Your task to perform on an android device: open wifi settings Image 0: 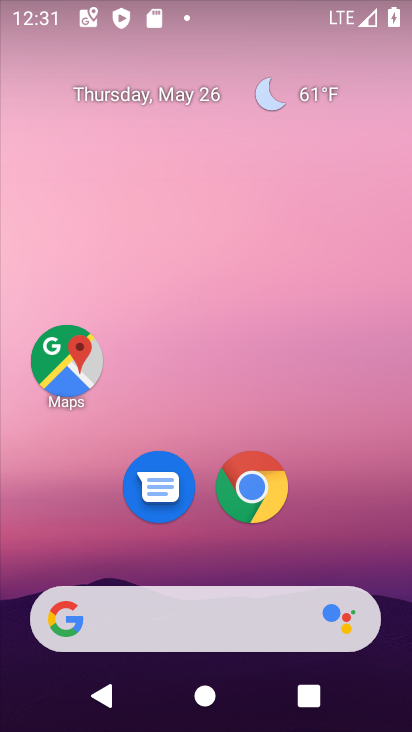
Step 0: drag from (356, 703) to (235, 227)
Your task to perform on an android device: open wifi settings Image 1: 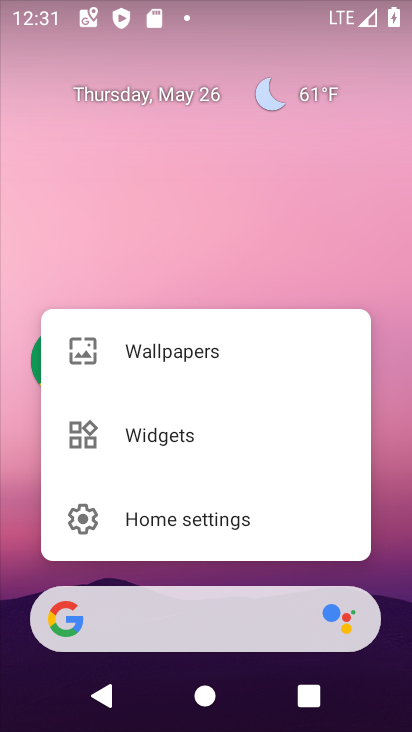
Step 1: click (232, 216)
Your task to perform on an android device: open wifi settings Image 2: 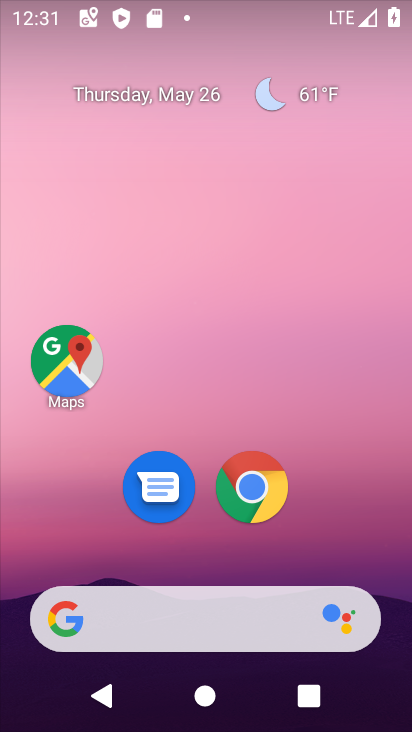
Step 2: drag from (261, 661) to (166, 217)
Your task to perform on an android device: open wifi settings Image 3: 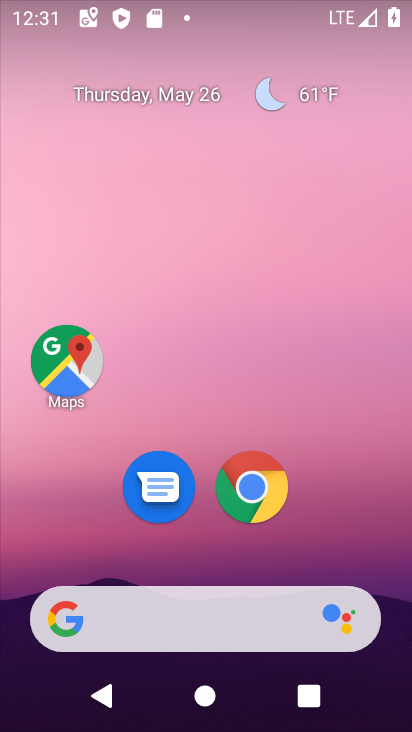
Step 3: drag from (276, 675) to (189, 94)
Your task to perform on an android device: open wifi settings Image 4: 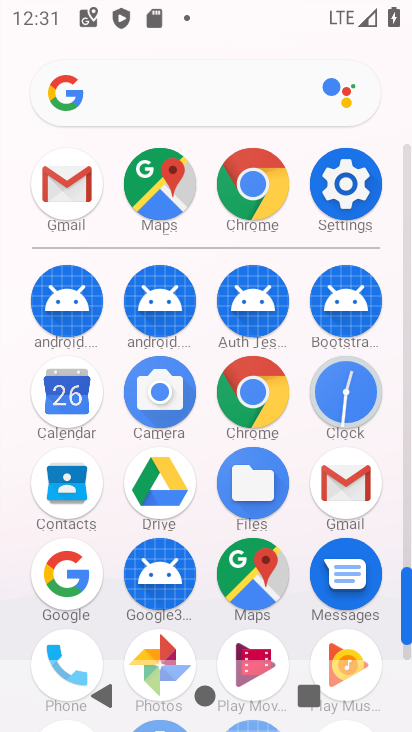
Step 4: click (338, 182)
Your task to perform on an android device: open wifi settings Image 5: 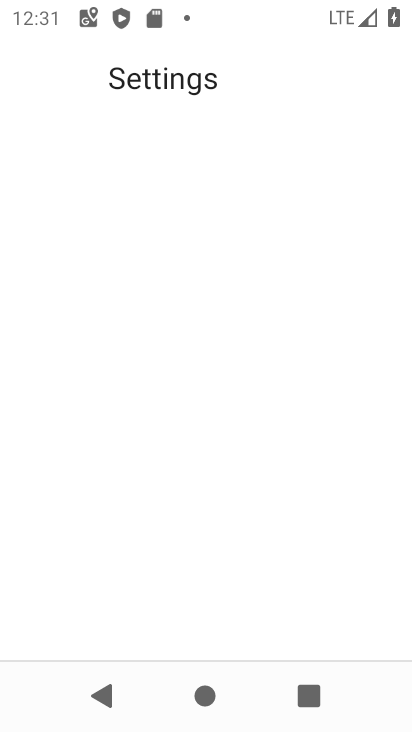
Step 5: click (338, 182)
Your task to perform on an android device: open wifi settings Image 6: 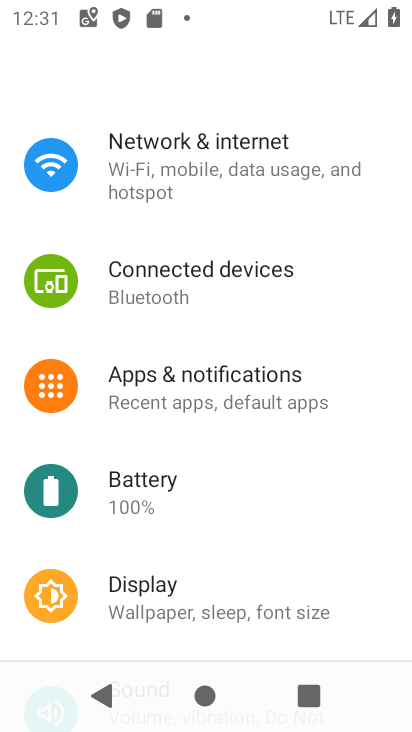
Step 6: click (339, 181)
Your task to perform on an android device: open wifi settings Image 7: 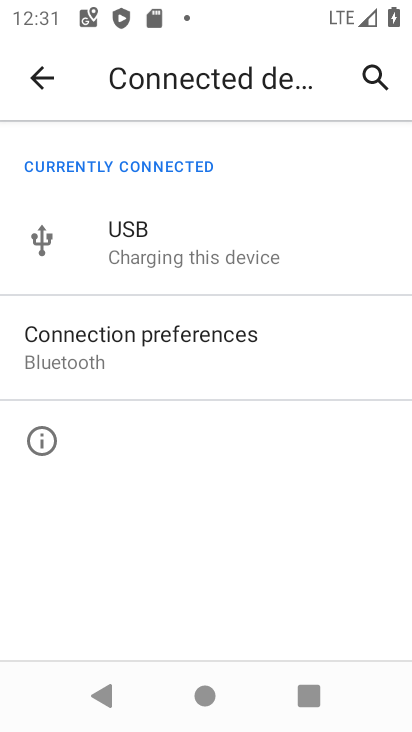
Step 7: click (32, 72)
Your task to perform on an android device: open wifi settings Image 8: 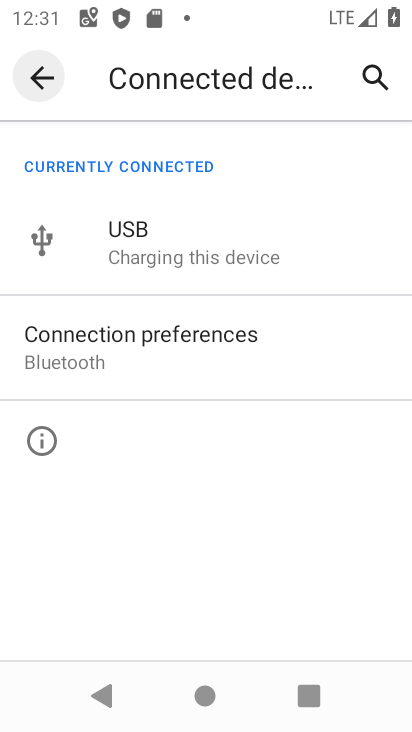
Step 8: click (33, 73)
Your task to perform on an android device: open wifi settings Image 9: 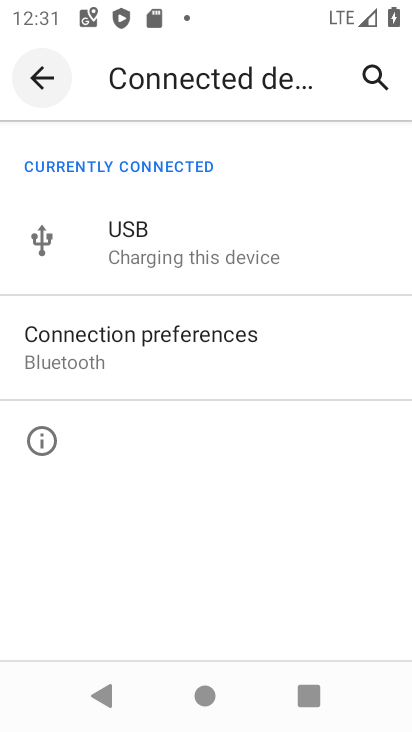
Step 9: click (33, 73)
Your task to perform on an android device: open wifi settings Image 10: 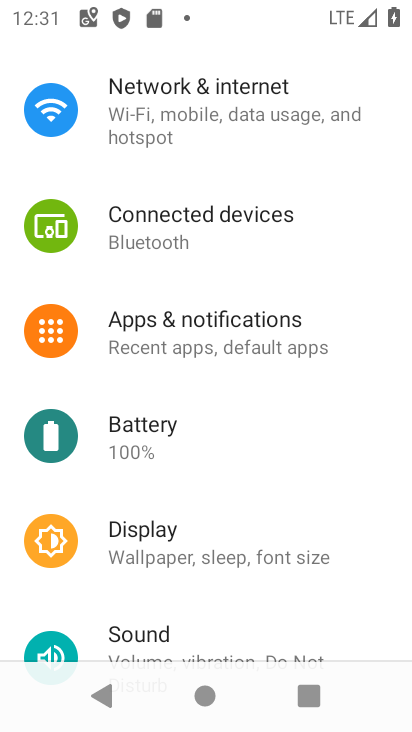
Step 10: click (33, 73)
Your task to perform on an android device: open wifi settings Image 11: 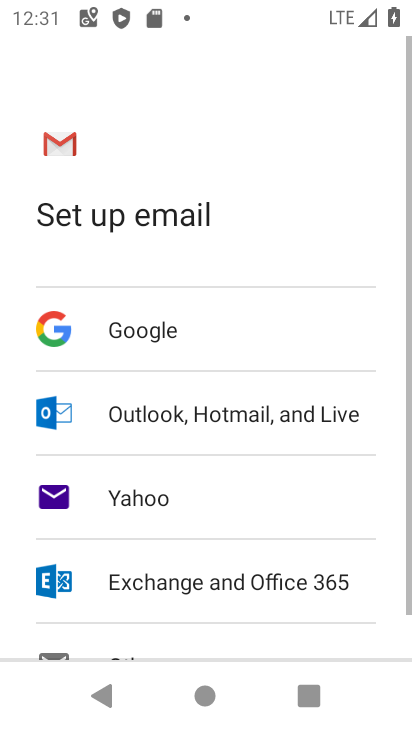
Step 11: press back button
Your task to perform on an android device: open wifi settings Image 12: 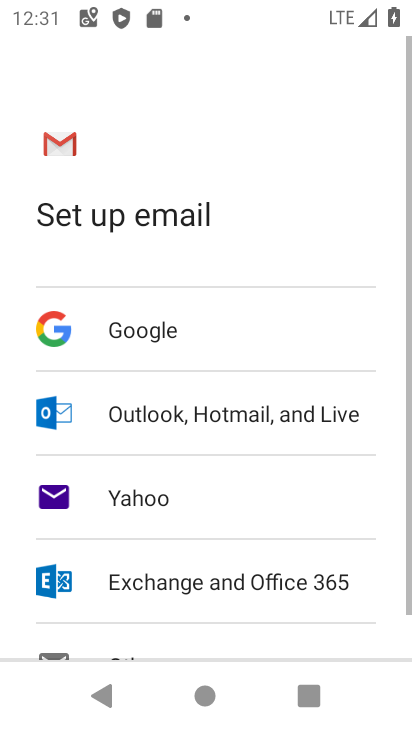
Step 12: press back button
Your task to perform on an android device: open wifi settings Image 13: 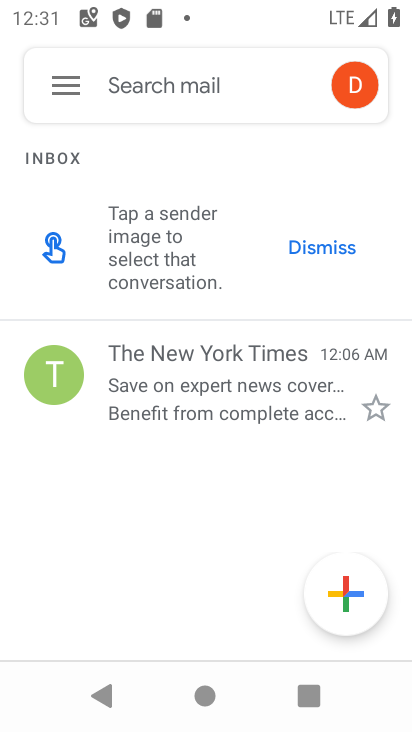
Step 13: press back button
Your task to perform on an android device: open wifi settings Image 14: 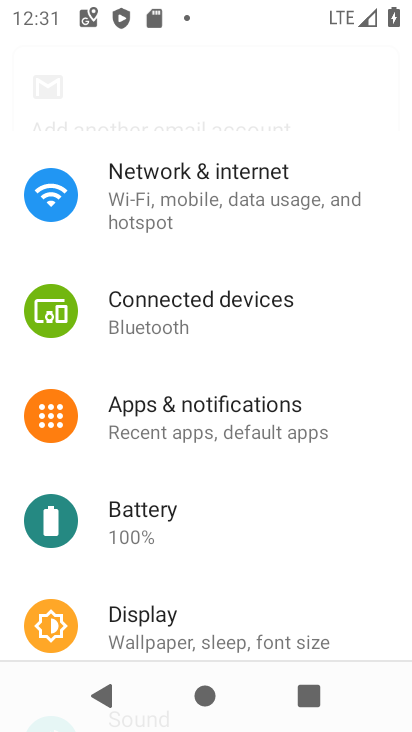
Step 14: press back button
Your task to perform on an android device: open wifi settings Image 15: 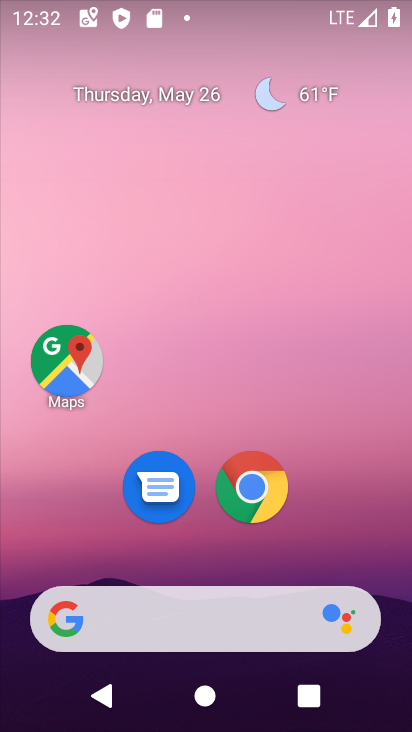
Step 15: drag from (253, 527) to (110, 70)
Your task to perform on an android device: open wifi settings Image 16: 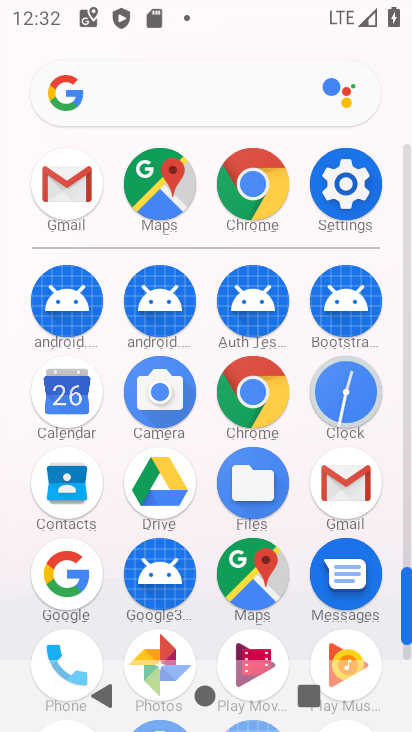
Step 16: click (349, 186)
Your task to perform on an android device: open wifi settings Image 17: 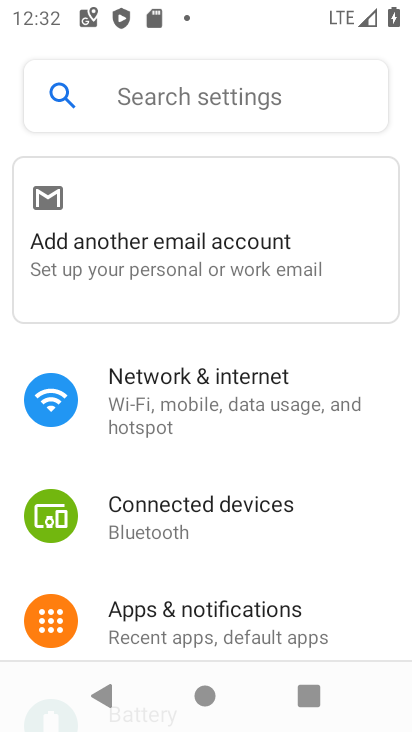
Step 17: click (179, 387)
Your task to perform on an android device: open wifi settings Image 18: 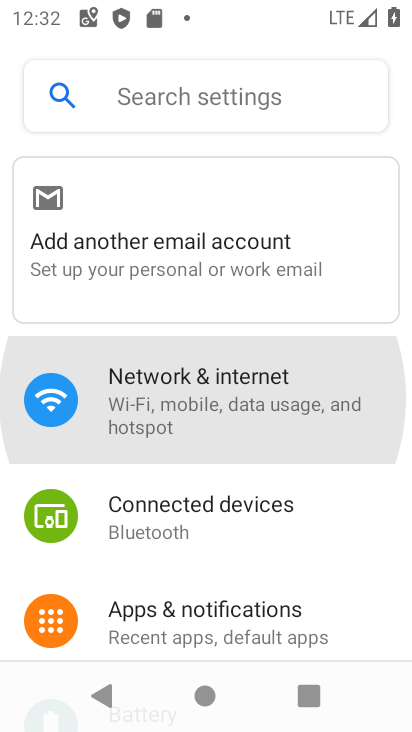
Step 18: click (178, 388)
Your task to perform on an android device: open wifi settings Image 19: 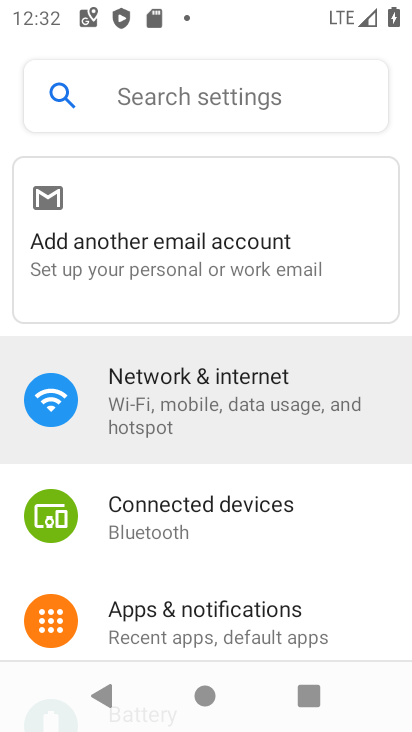
Step 19: click (178, 388)
Your task to perform on an android device: open wifi settings Image 20: 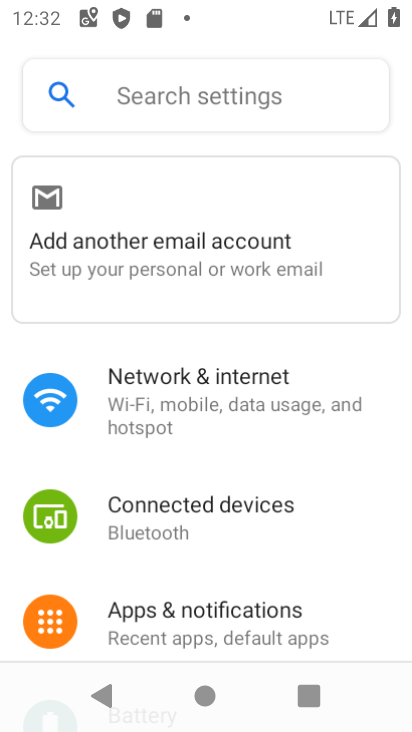
Step 20: click (178, 388)
Your task to perform on an android device: open wifi settings Image 21: 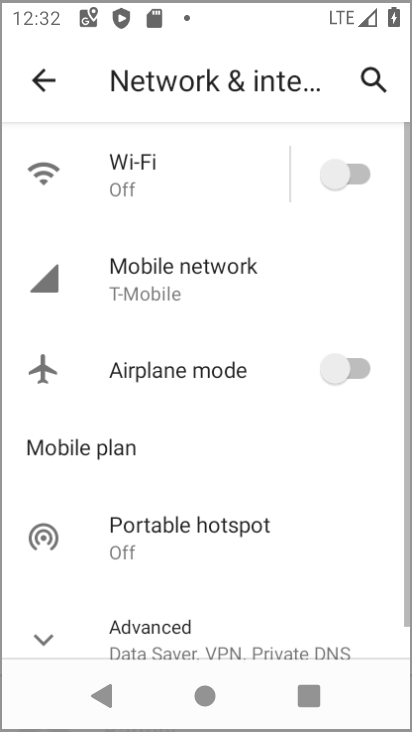
Step 21: click (177, 387)
Your task to perform on an android device: open wifi settings Image 22: 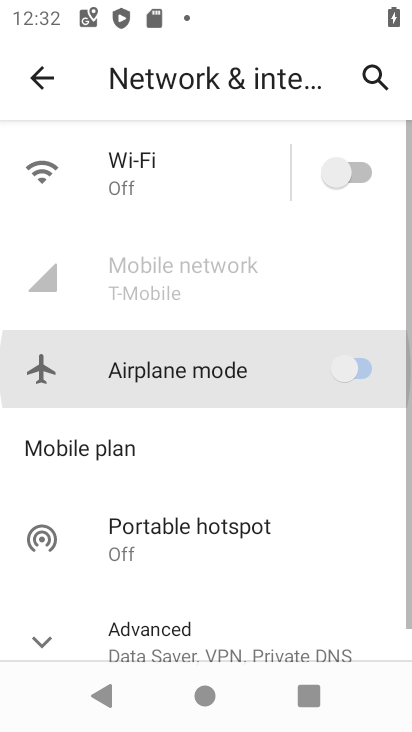
Step 22: click (176, 386)
Your task to perform on an android device: open wifi settings Image 23: 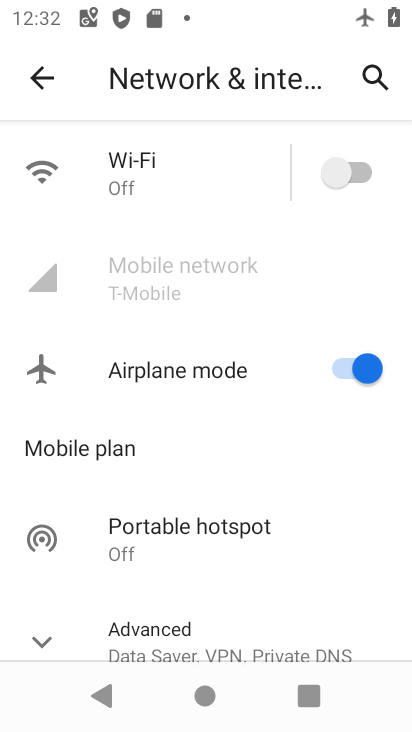
Step 23: click (359, 365)
Your task to perform on an android device: open wifi settings Image 24: 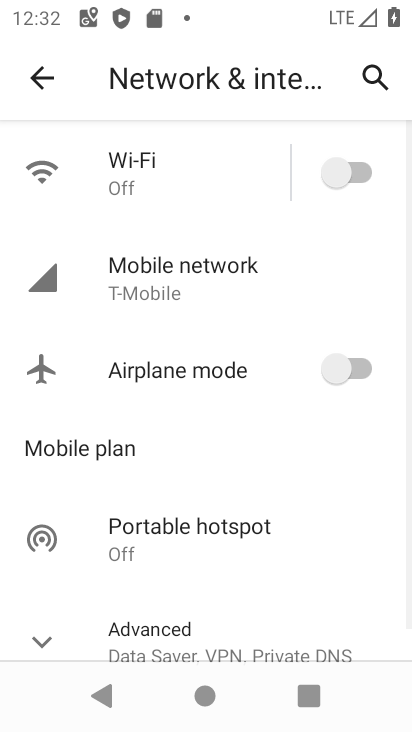
Step 24: task complete